Your task to perform on an android device: Search for pizza restaurants on Maps Image 0: 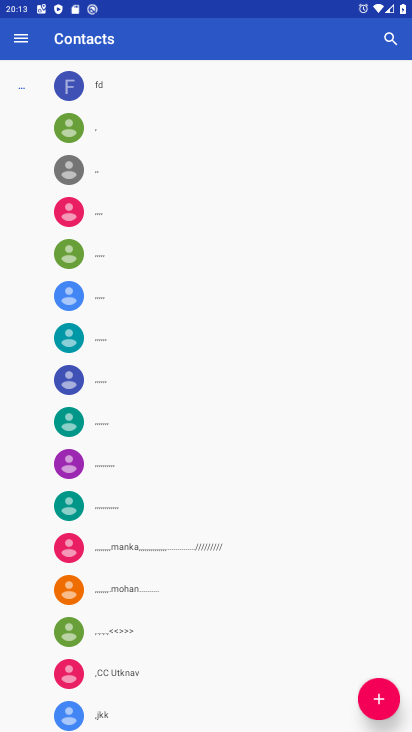
Step 0: drag from (225, 564) to (291, 119)
Your task to perform on an android device: Search for pizza restaurants on Maps Image 1: 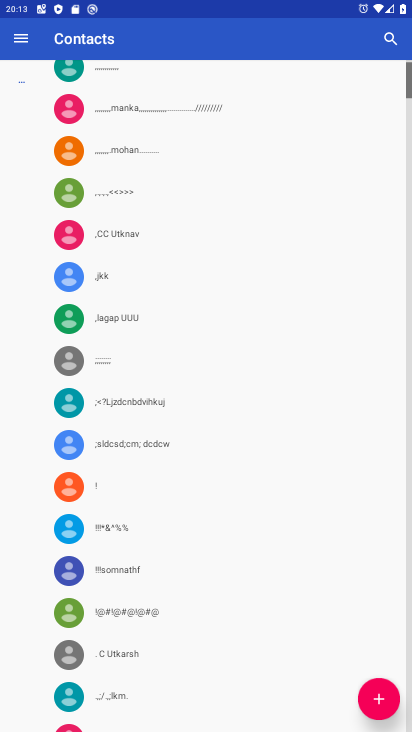
Step 1: press home button
Your task to perform on an android device: Search for pizza restaurants on Maps Image 2: 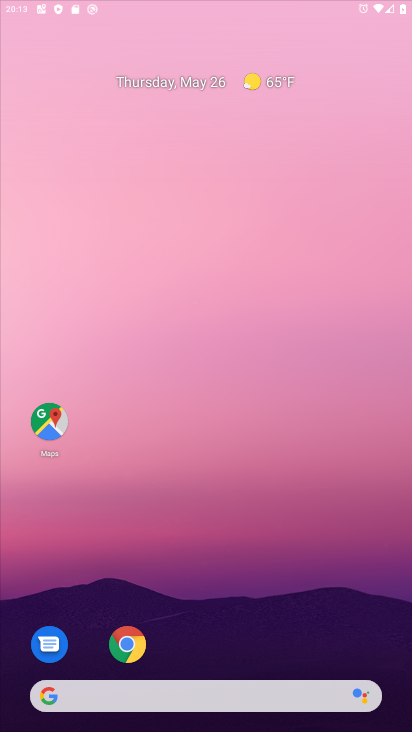
Step 2: drag from (160, 585) to (236, 254)
Your task to perform on an android device: Search for pizza restaurants on Maps Image 3: 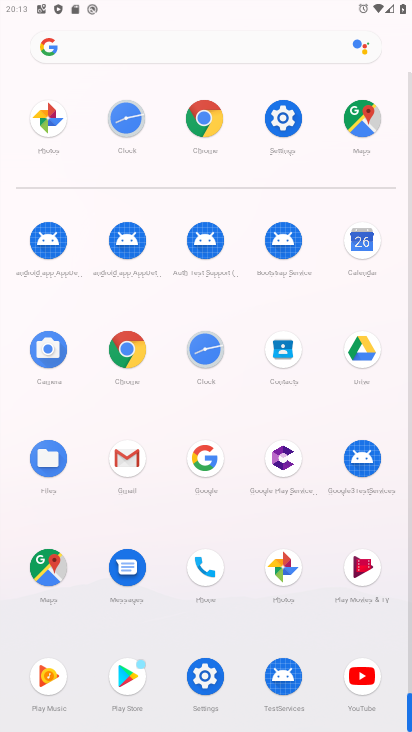
Step 3: click (49, 564)
Your task to perform on an android device: Search for pizza restaurants on Maps Image 4: 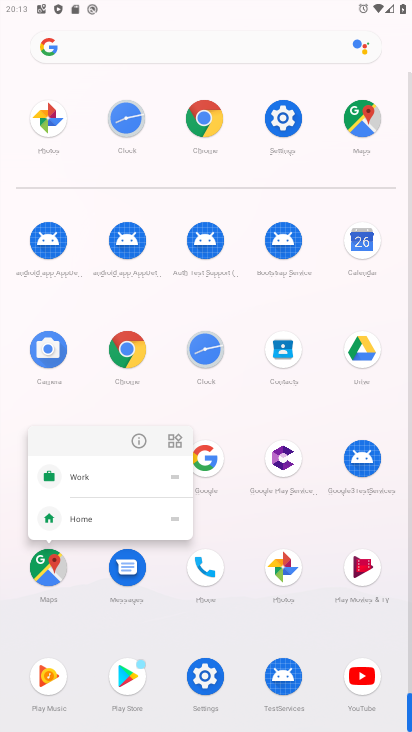
Step 4: click (141, 431)
Your task to perform on an android device: Search for pizza restaurants on Maps Image 5: 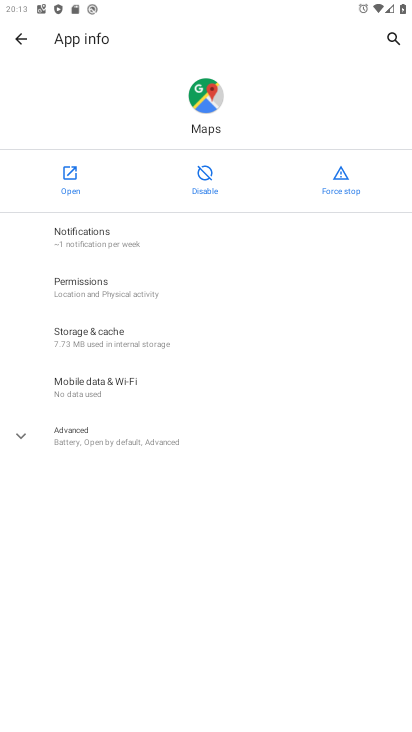
Step 5: click (77, 170)
Your task to perform on an android device: Search for pizza restaurants on Maps Image 6: 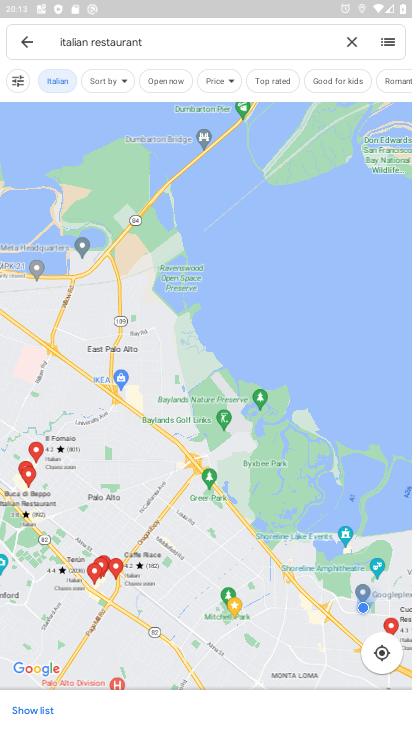
Step 6: drag from (215, 234) to (239, 556)
Your task to perform on an android device: Search for pizza restaurants on Maps Image 7: 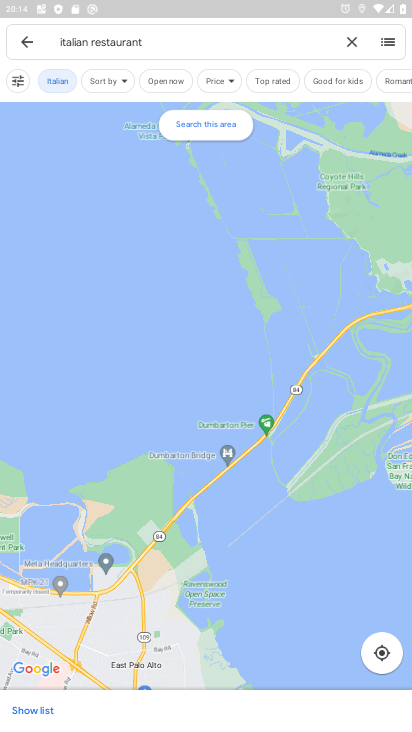
Step 7: click (350, 42)
Your task to perform on an android device: Search for pizza restaurants on Maps Image 8: 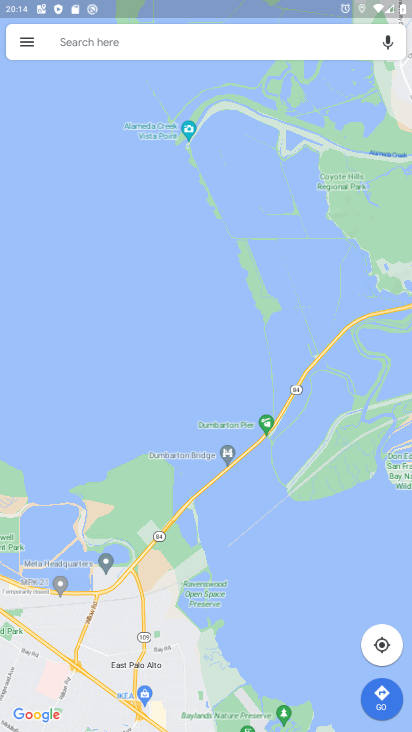
Step 8: click (106, 37)
Your task to perform on an android device: Search for pizza restaurants on Maps Image 9: 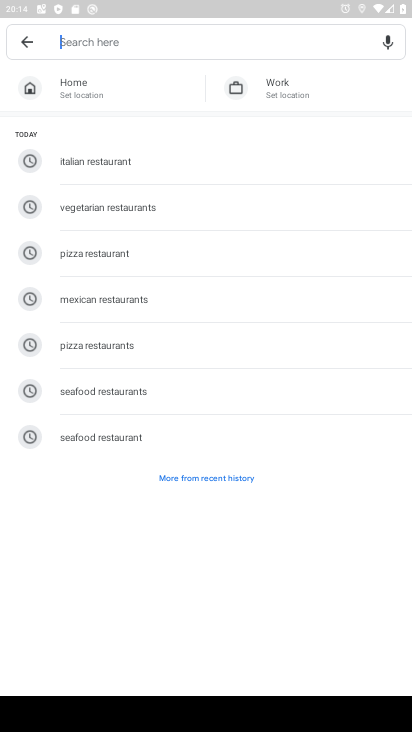
Step 9: click (107, 259)
Your task to perform on an android device: Search for pizza restaurants on Maps Image 10: 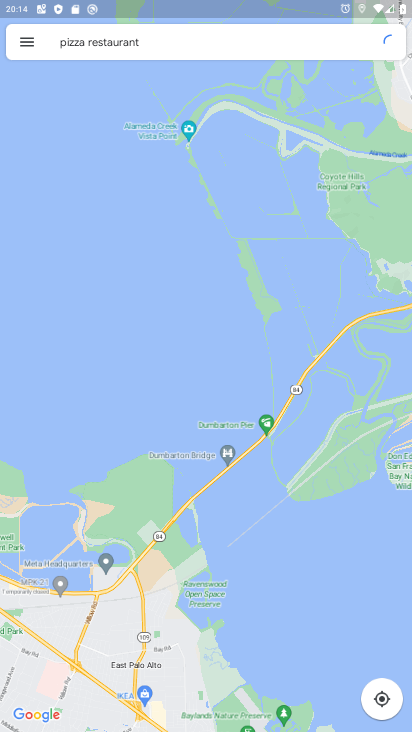
Step 10: task complete